Your task to perform on an android device: create a new album in the google photos Image 0: 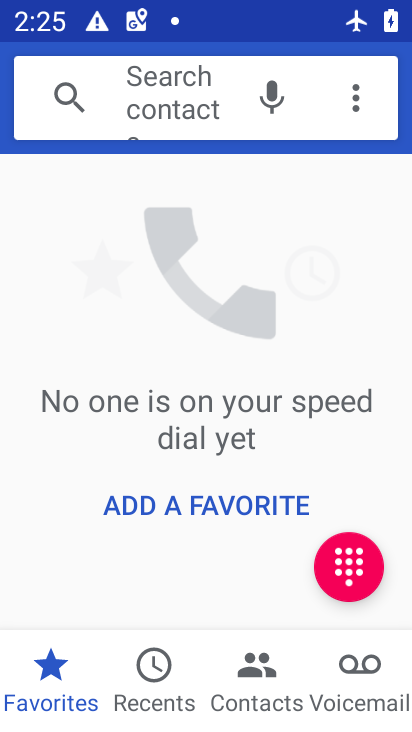
Step 0: press back button
Your task to perform on an android device: create a new album in the google photos Image 1: 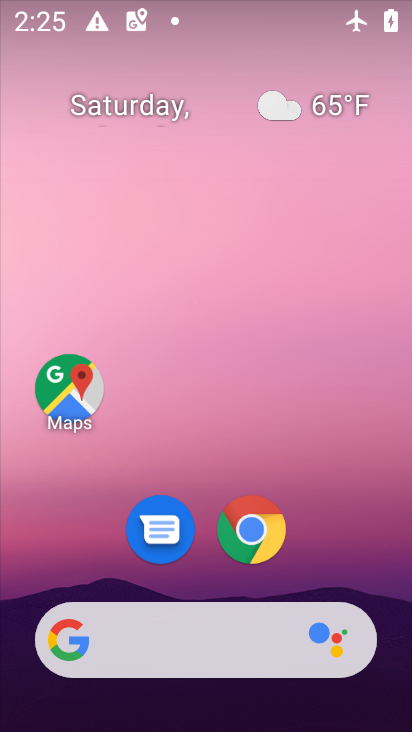
Step 1: drag from (369, 566) to (244, 96)
Your task to perform on an android device: create a new album in the google photos Image 2: 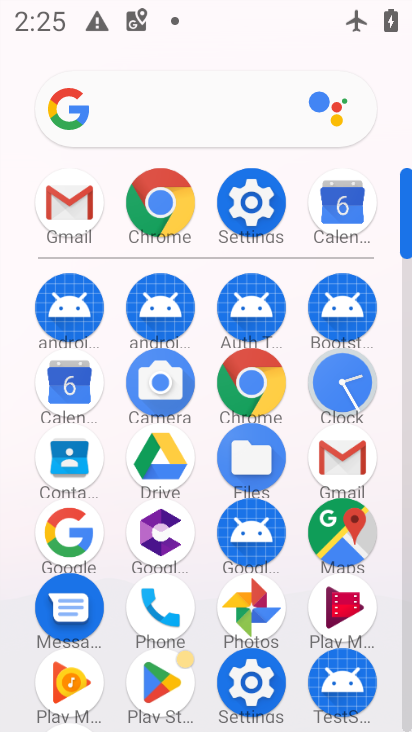
Step 2: click (249, 618)
Your task to perform on an android device: create a new album in the google photos Image 3: 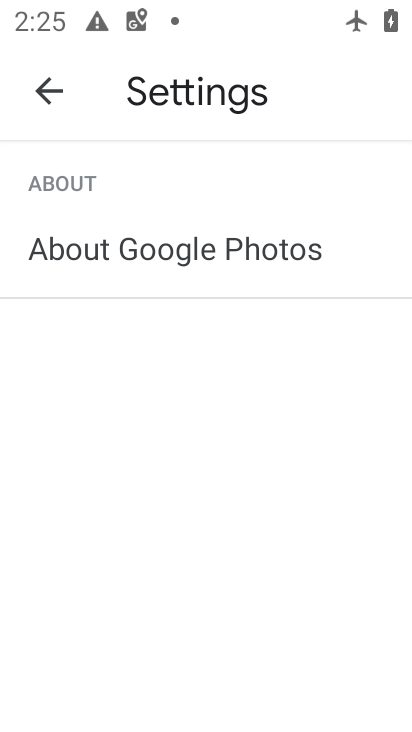
Step 3: click (61, 110)
Your task to perform on an android device: create a new album in the google photos Image 4: 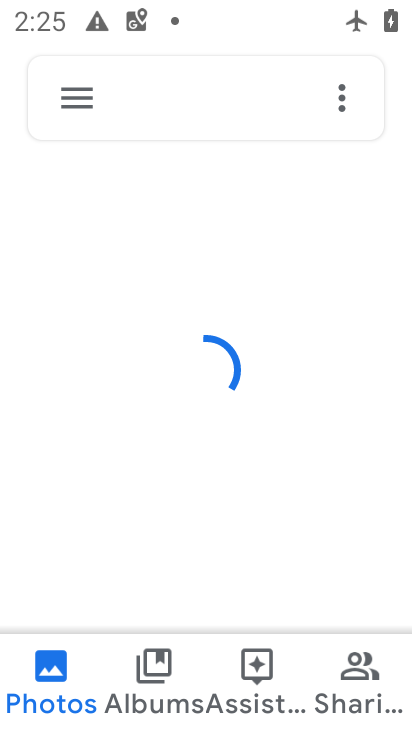
Step 4: click (274, 671)
Your task to perform on an android device: create a new album in the google photos Image 5: 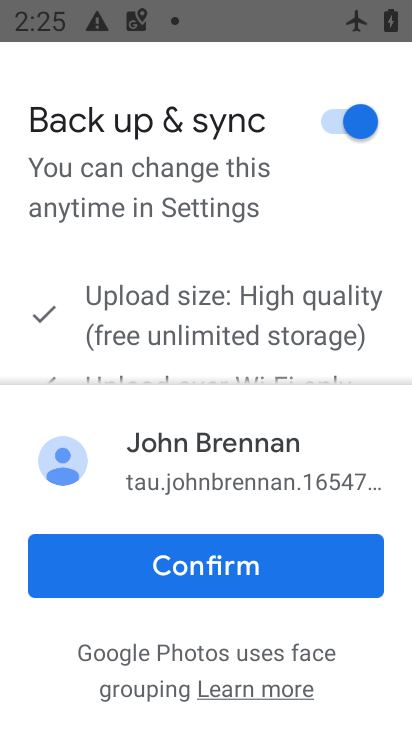
Step 5: click (255, 569)
Your task to perform on an android device: create a new album in the google photos Image 6: 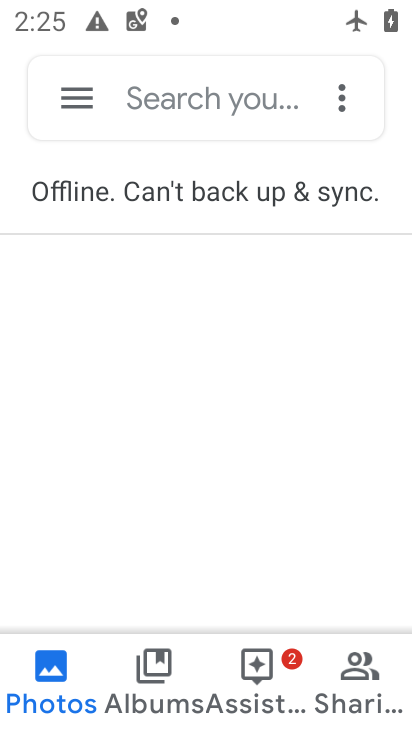
Step 6: click (256, 666)
Your task to perform on an android device: create a new album in the google photos Image 7: 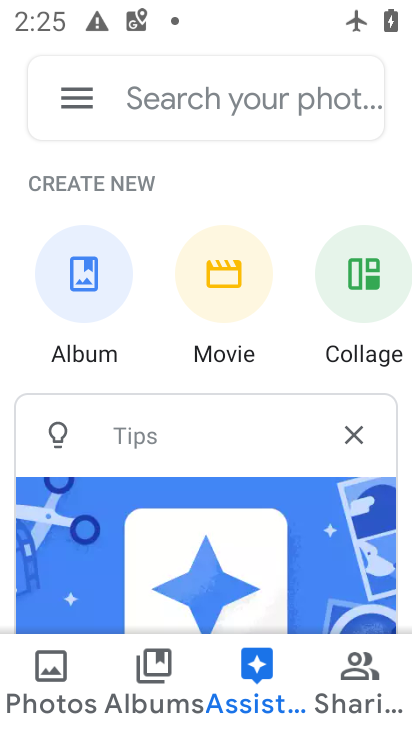
Step 7: click (89, 308)
Your task to perform on an android device: create a new album in the google photos Image 8: 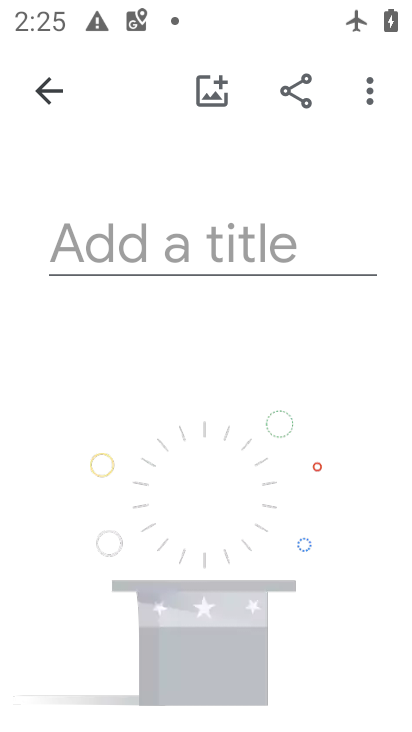
Step 8: click (206, 90)
Your task to perform on an android device: create a new album in the google photos Image 9: 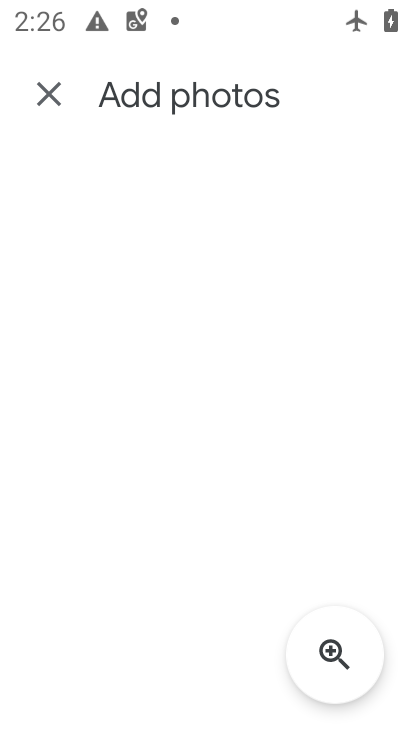
Step 9: task complete